Your task to perform on an android device: turn vacation reply on in the gmail app Image 0: 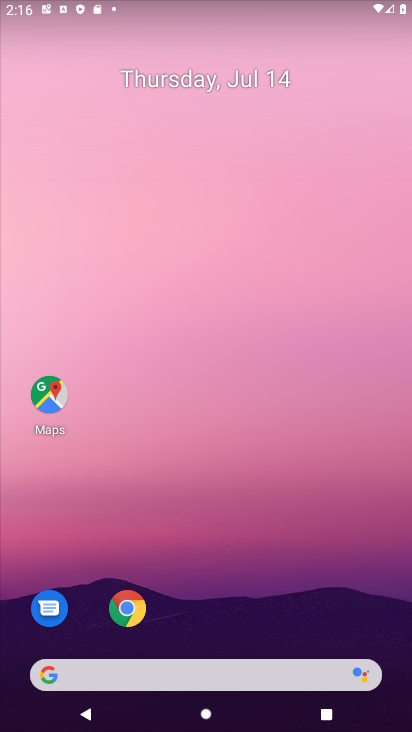
Step 0: drag from (362, 638) to (303, 218)
Your task to perform on an android device: turn vacation reply on in the gmail app Image 1: 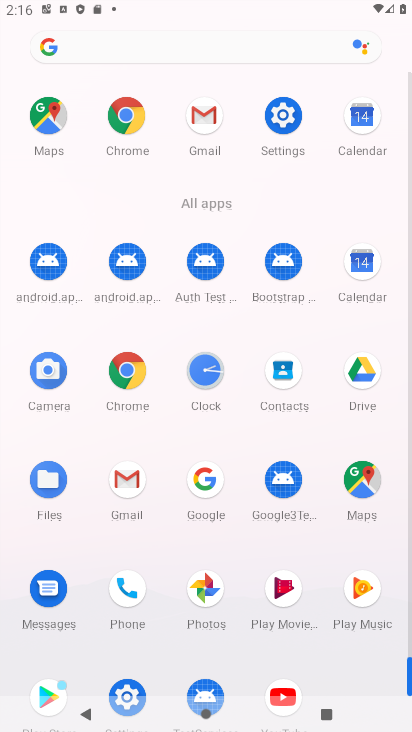
Step 1: click (126, 480)
Your task to perform on an android device: turn vacation reply on in the gmail app Image 2: 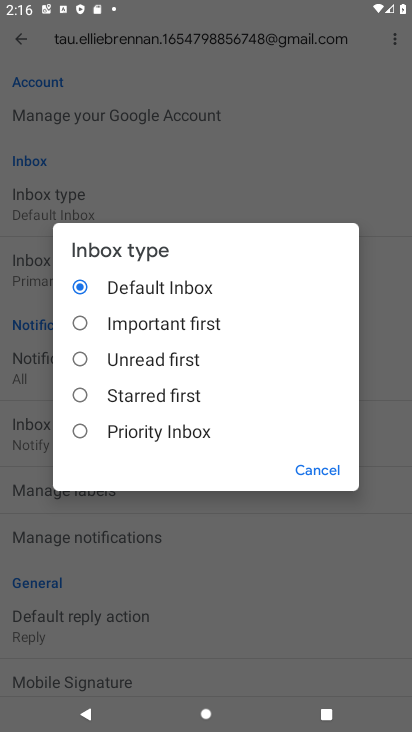
Step 2: click (305, 465)
Your task to perform on an android device: turn vacation reply on in the gmail app Image 3: 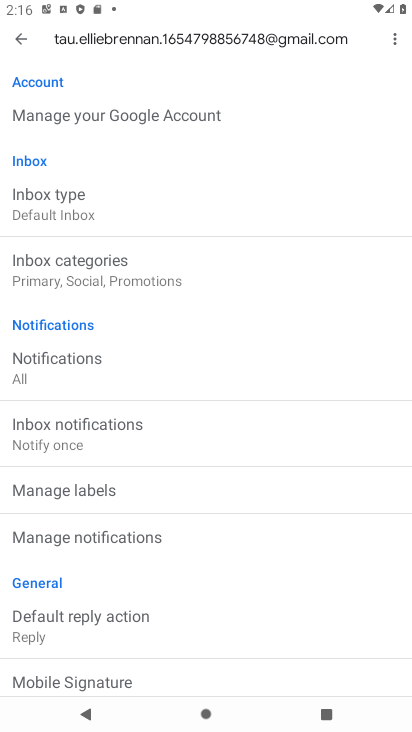
Step 3: drag from (252, 634) to (217, 244)
Your task to perform on an android device: turn vacation reply on in the gmail app Image 4: 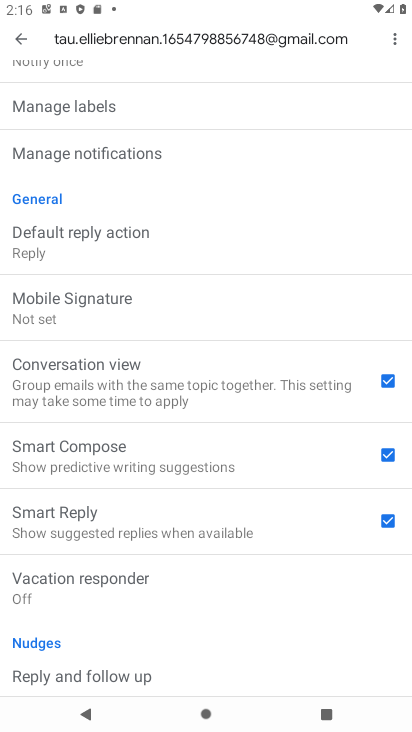
Step 4: click (53, 572)
Your task to perform on an android device: turn vacation reply on in the gmail app Image 5: 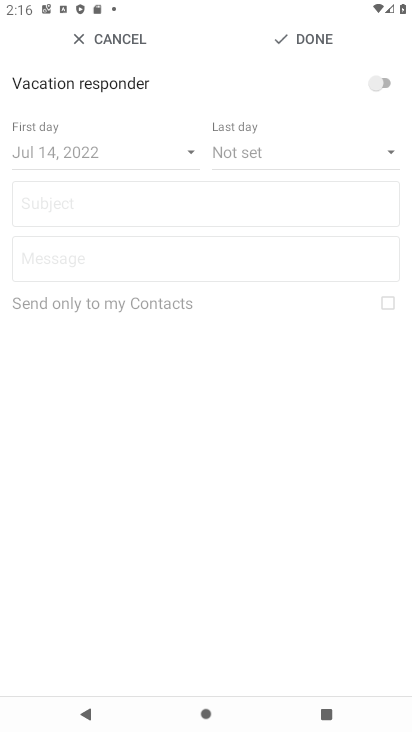
Step 5: click (386, 85)
Your task to perform on an android device: turn vacation reply on in the gmail app Image 6: 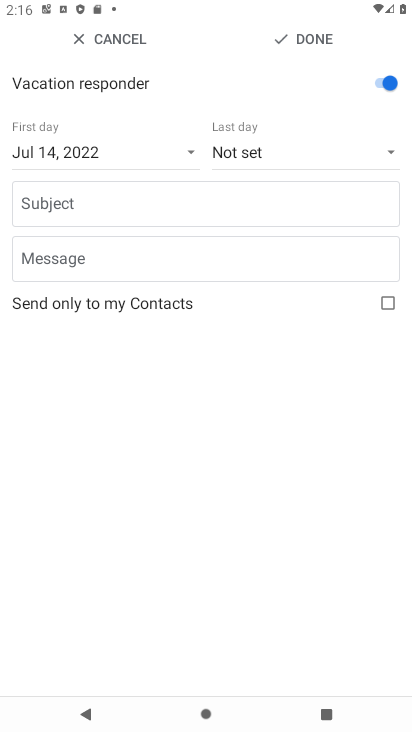
Step 6: click (306, 41)
Your task to perform on an android device: turn vacation reply on in the gmail app Image 7: 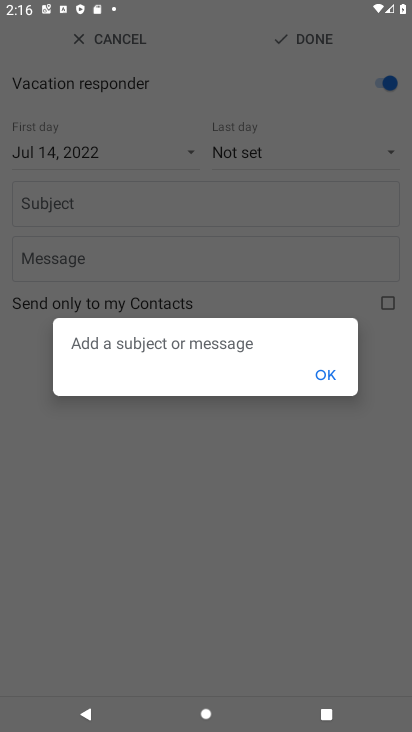
Step 7: click (324, 378)
Your task to perform on an android device: turn vacation reply on in the gmail app Image 8: 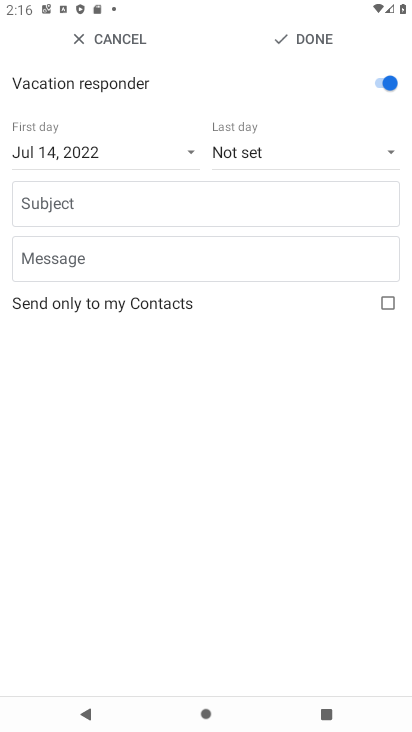
Step 8: task complete